Your task to perform on an android device: turn notification dots off Image 0: 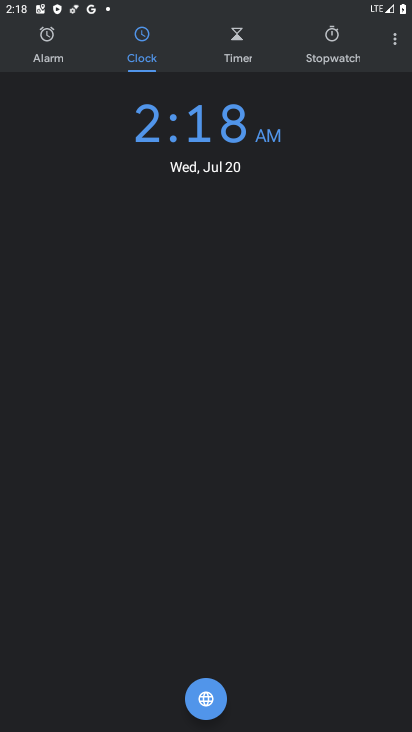
Step 0: press home button
Your task to perform on an android device: turn notification dots off Image 1: 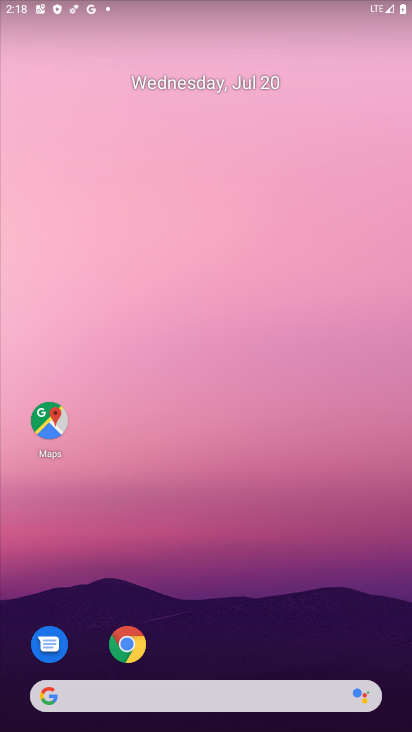
Step 1: drag from (161, 692) to (361, 242)
Your task to perform on an android device: turn notification dots off Image 2: 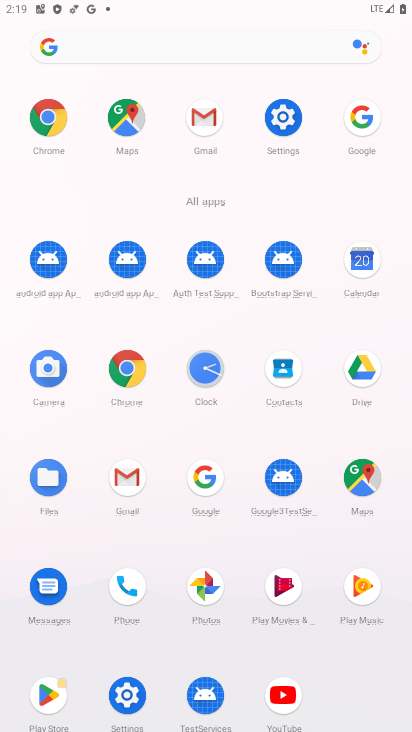
Step 2: click (282, 115)
Your task to perform on an android device: turn notification dots off Image 3: 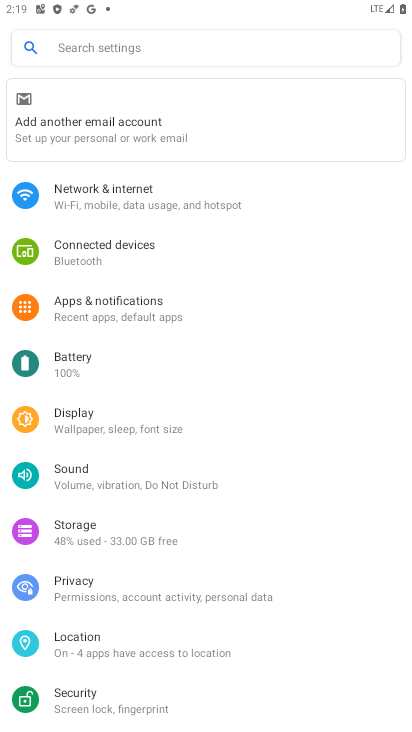
Step 3: click (110, 314)
Your task to perform on an android device: turn notification dots off Image 4: 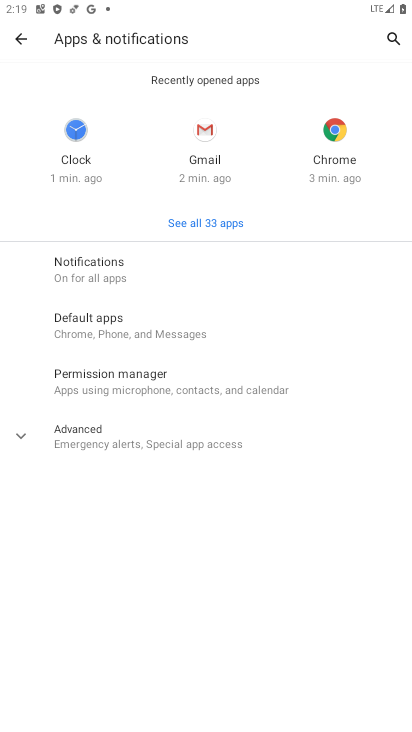
Step 4: click (121, 267)
Your task to perform on an android device: turn notification dots off Image 5: 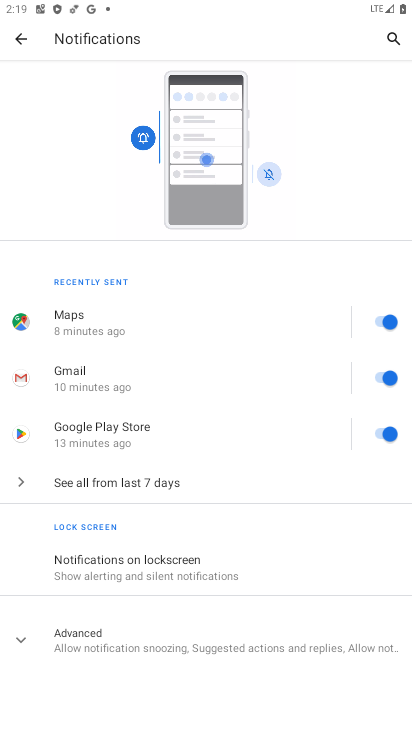
Step 5: click (159, 643)
Your task to perform on an android device: turn notification dots off Image 6: 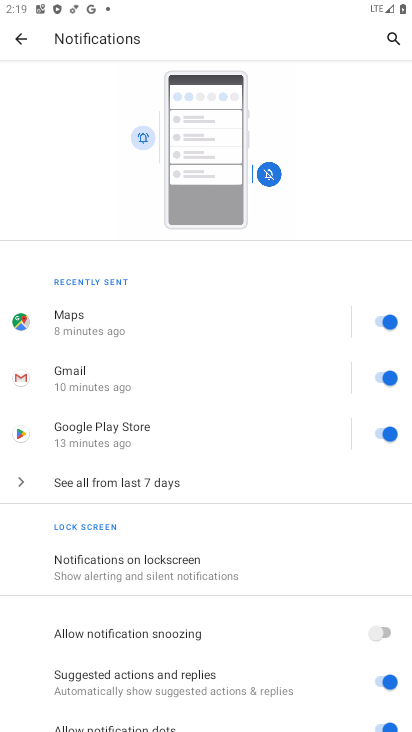
Step 6: drag from (168, 524) to (247, 370)
Your task to perform on an android device: turn notification dots off Image 7: 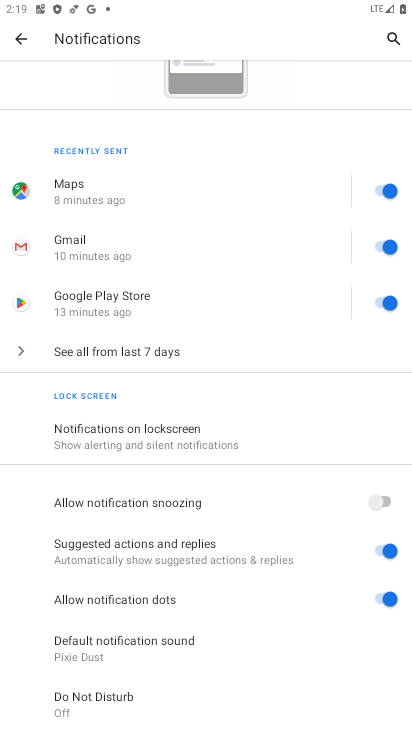
Step 7: click (382, 598)
Your task to perform on an android device: turn notification dots off Image 8: 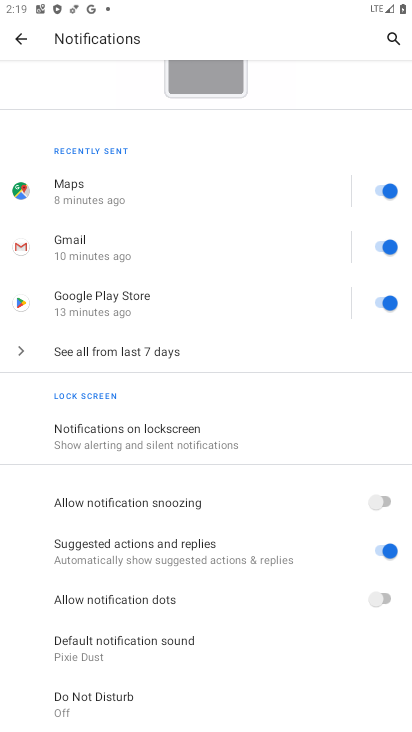
Step 8: task complete